Your task to perform on an android device: open app "Reddit" (install if not already installed), go to login, and select forgot password Image 0: 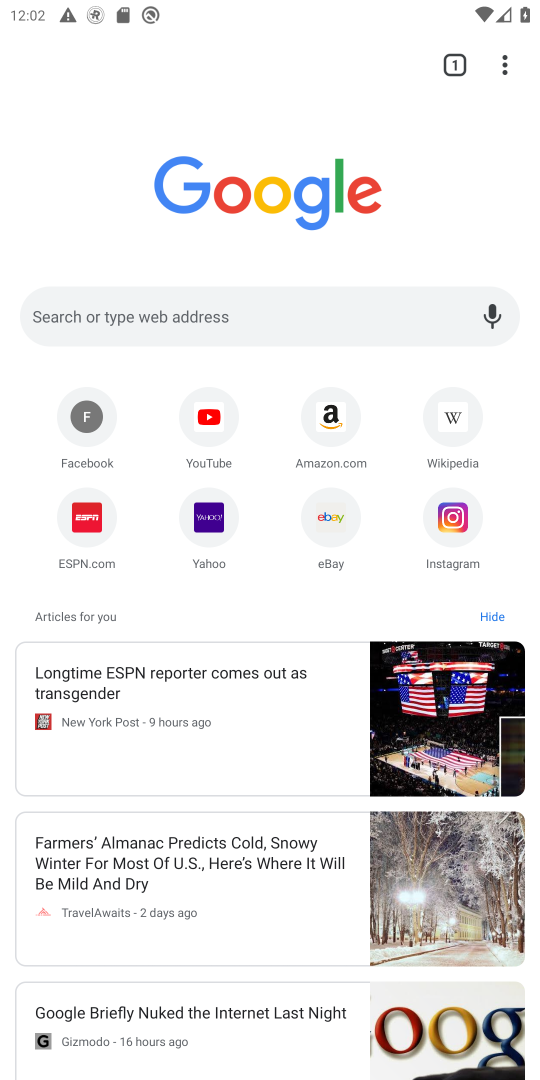
Step 0: press home button
Your task to perform on an android device: open app "Reddit" (install if not already installed), go to login, and select forgot password Image 1: 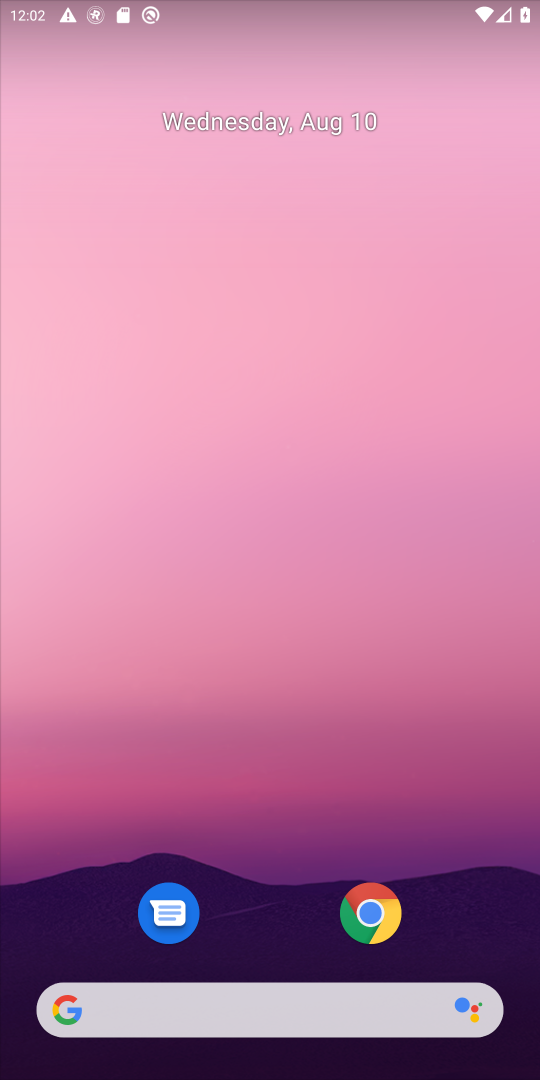
Step 1: drag from (170, 1009) to (198, 306)
Your task to perform on an android device: open app "Reddit" (install if not already installed), go to login, and select forgot password Image 2: 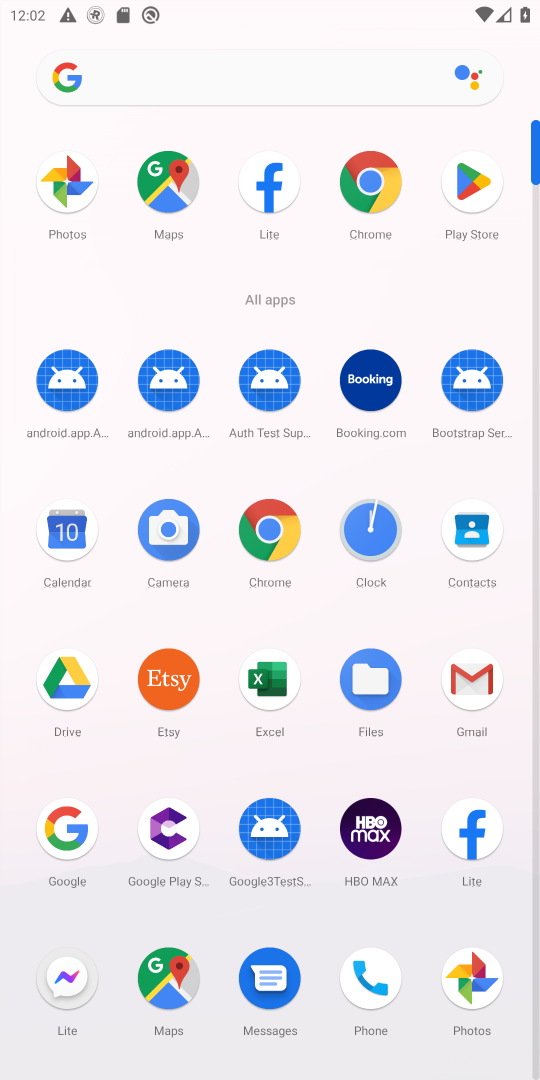
Step 2: click (255, 524)
Your task to perform on an android device: open app "Reddit" (install if not already installed), go to login, and select forgot password Image 3: 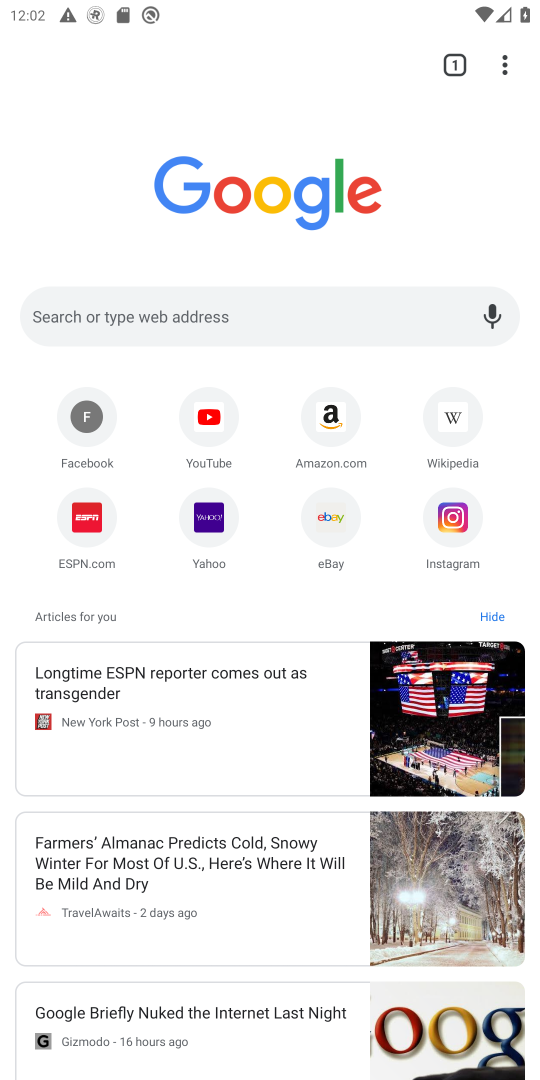
Step 3: press home button
Your task to perform on an android device: open app "Reddit" (install if not already installed), go to login, and select forgot password Image 4: 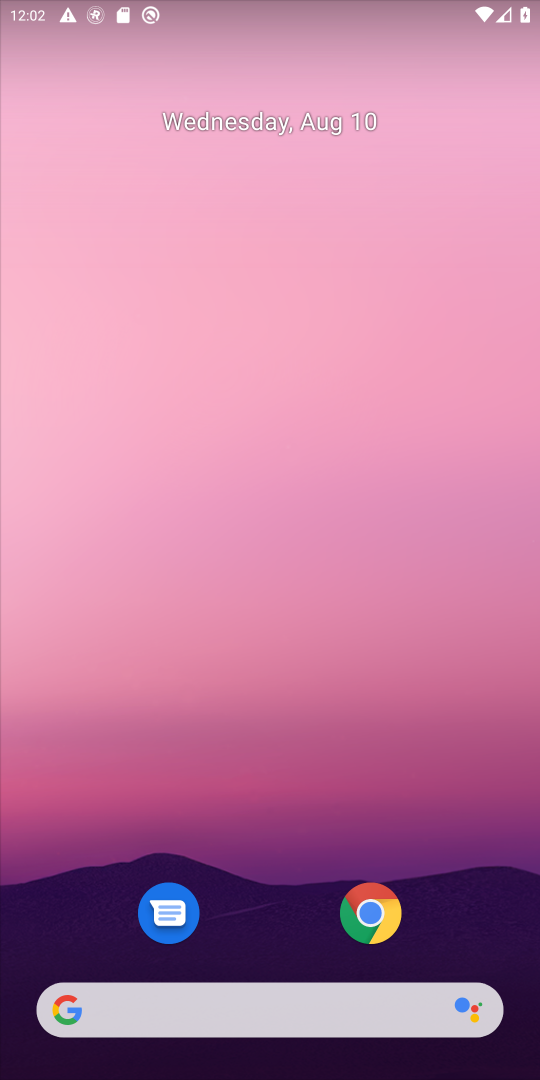
Step 4: drag from (250, 600) to (249, 198)
Your task to perform on an android device: open app "Reddit" (install if not already installed), go to login, and select forgot password Image 5: 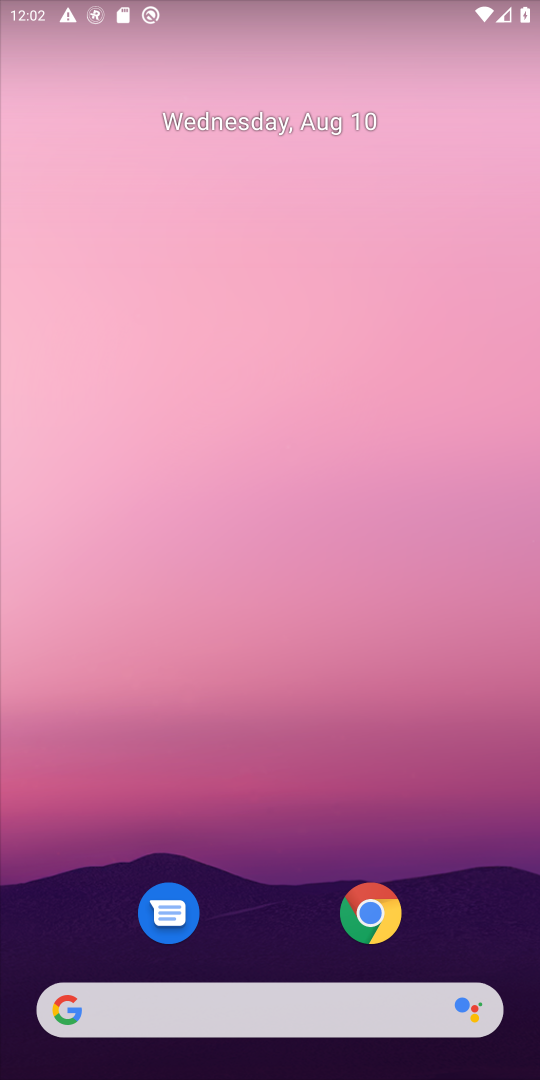
Step 5: drag from (301, 913) to (321, 150)
Your task to perform on an android device: open app "Reddit" (install if not already installed), go to login, and select forgot password Image 6: 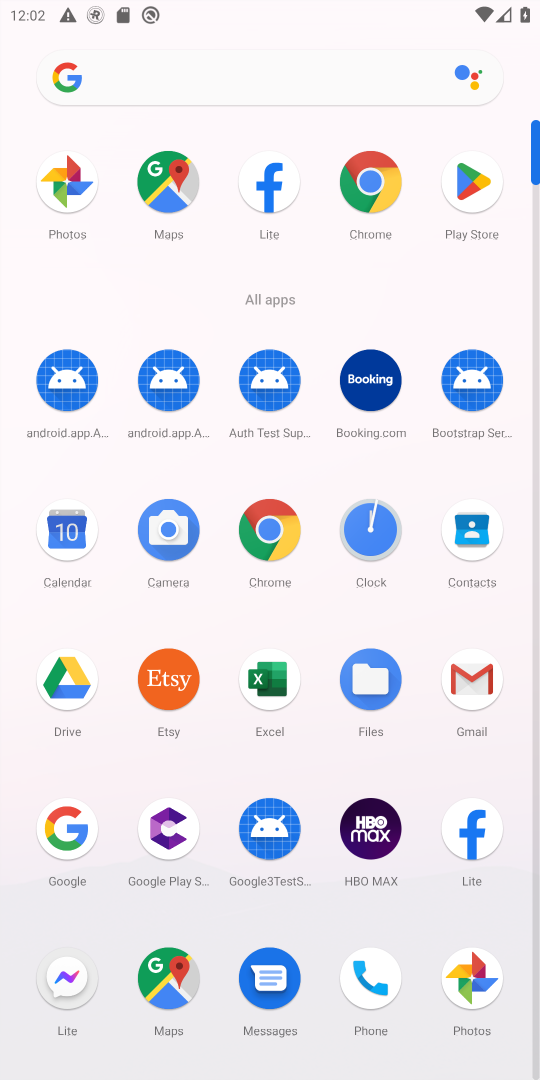
Step 6: click (473, 169)
Your task to perform on an android device: open app "Reddit" (install if not already installed), go to login, and select forgot password Image 7: 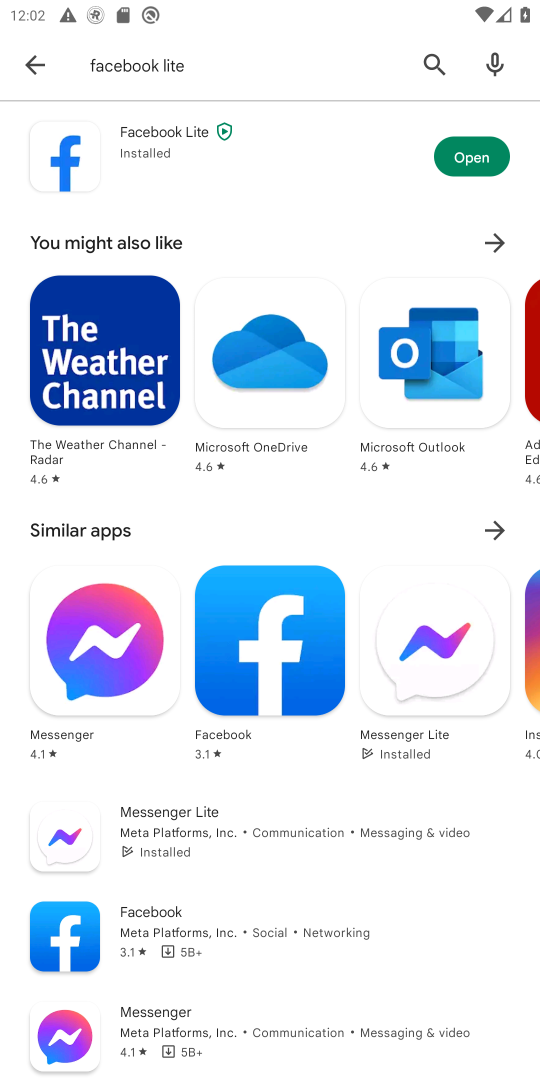
Step 7: click (47, 63)
Your task to perform on an android device: open app "Reddit" (install if not already installed), go to login, and select forgot password Image 8: 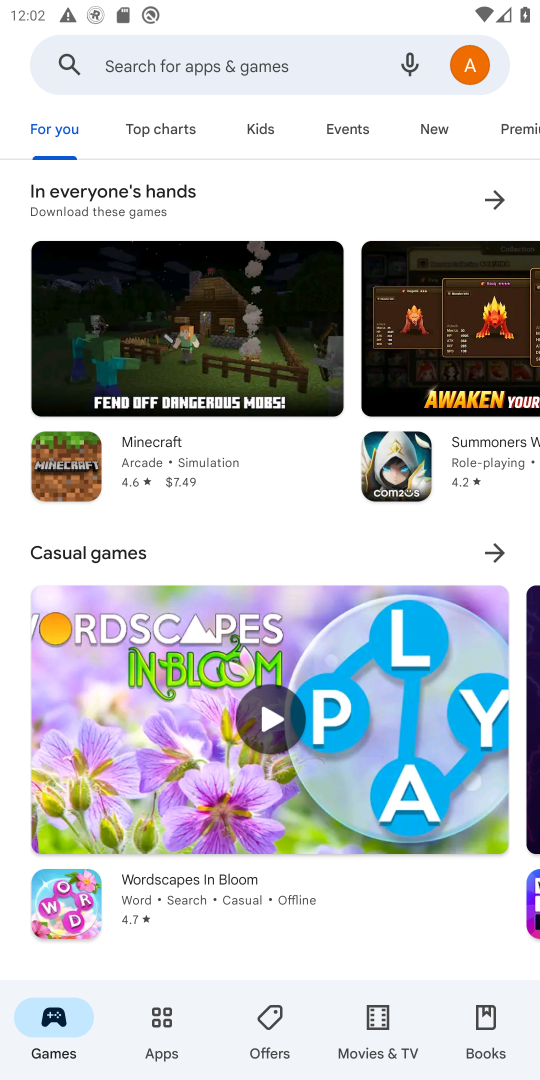
Step 8: click (218, 48)
Your task to perform on an android device: open app "Reddit" (install if not already installed), go to login, and select forgot password Image 9: 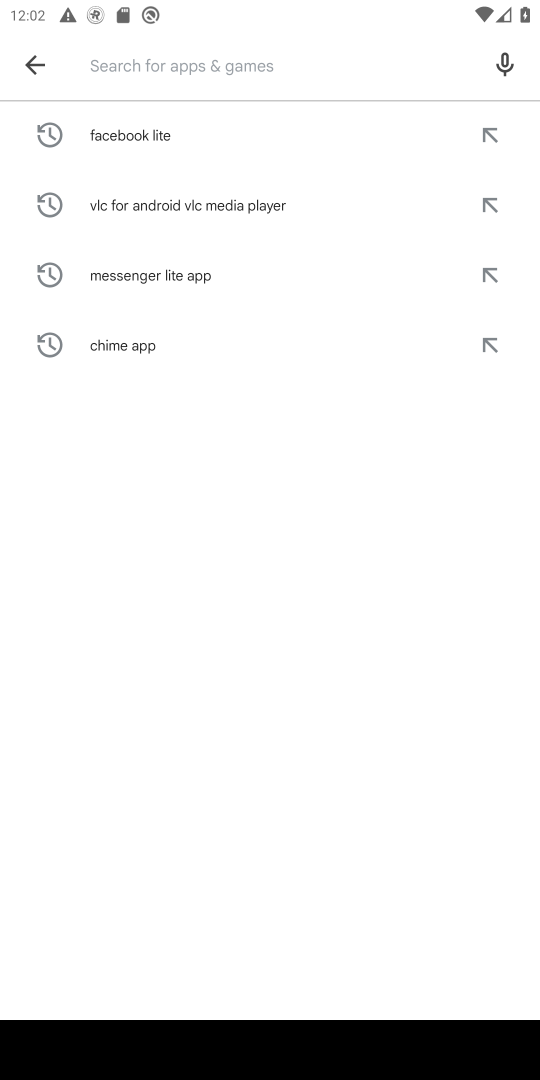
Step 9: type ""Reddit" "
Your task to perform on an android device: open app "Reddit" (install if not already installed), go to login, and select forgot password Image 10: 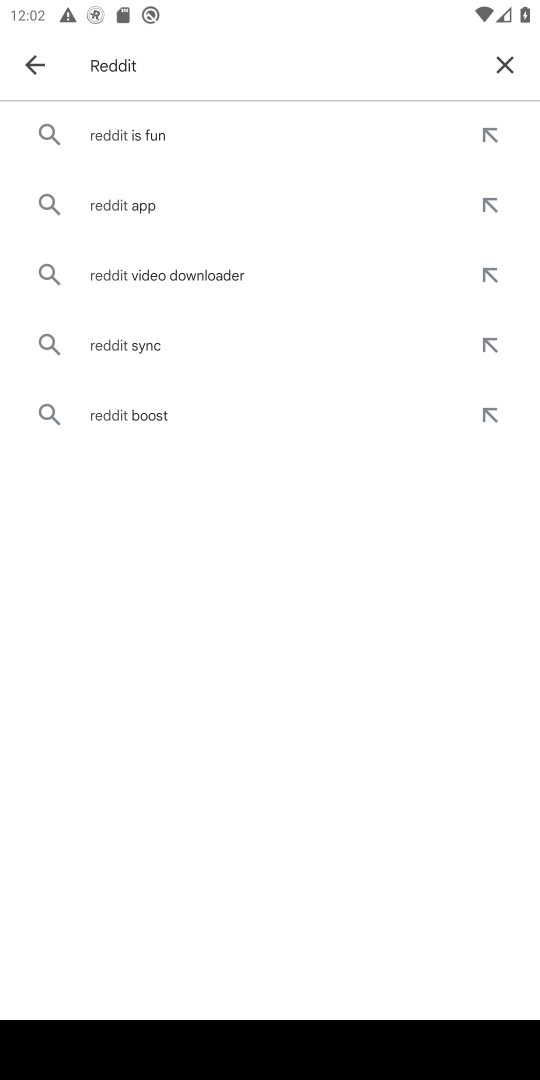
Step 10: click (154, 212)
Your task to perform on an android device: open app "Reddit" (install if not already installed), go to login, and select forgot password Image 11: 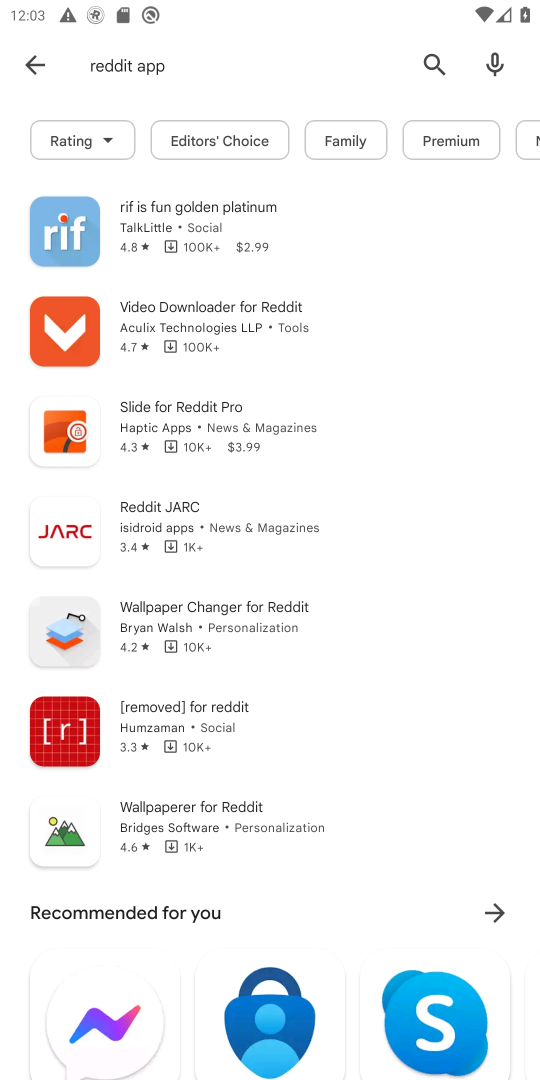
Step 11: click (42, 58)
Your task to perform on an android device: open app "Reddit" (install if not already installed), go to login, and select forgot password Image 12: 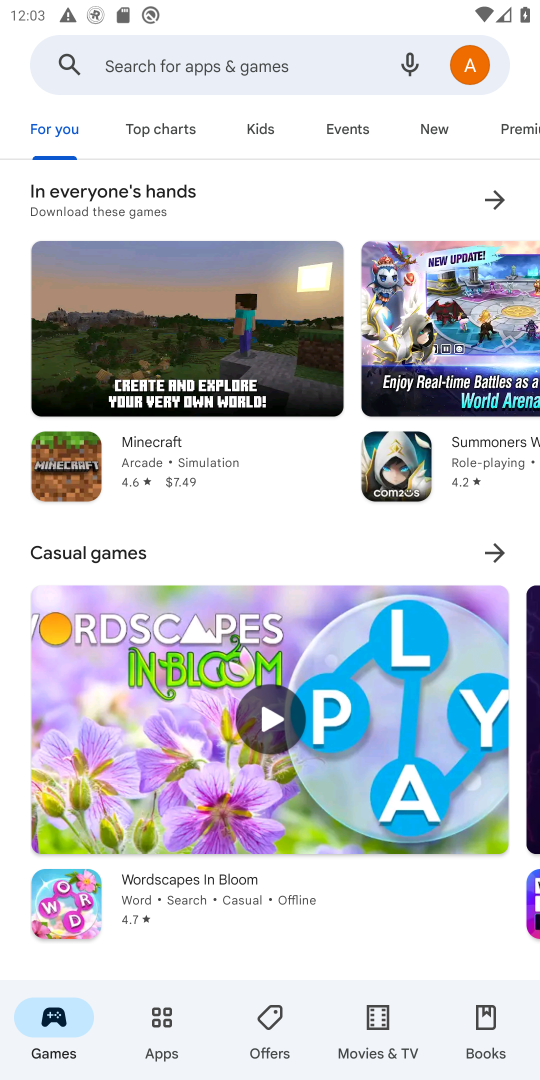
Step 12: click (225, 55)
Your task to perform on an android device: open app "Reddit" (install if not already installed), go to login, and select forgot password Image 13: 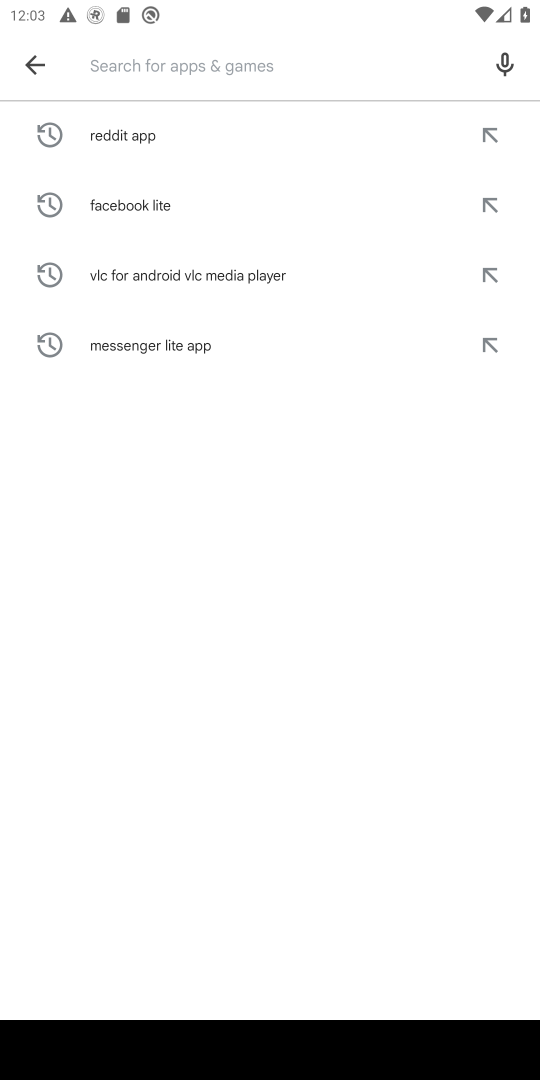
Step 13: type "reddit "
Your task to perform on an android device: open app "Reddit" (install if not already installed), go to login, and select forgot password Image 14: 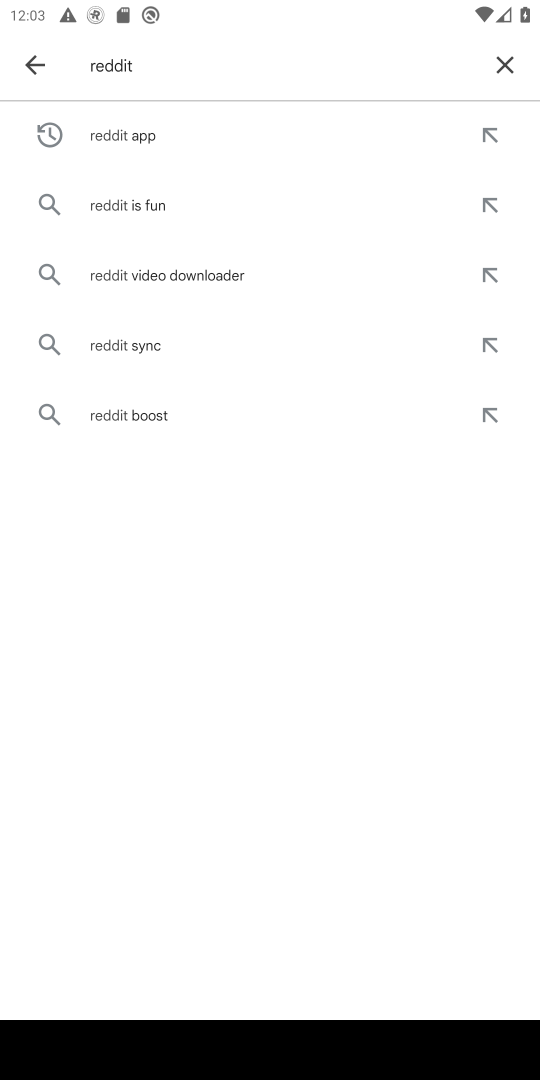
Step 14: click (129, 137)
Your task to perform on an android device: open app "Reddit" (install if not already installed), go to login, and select forgot password Image 15: 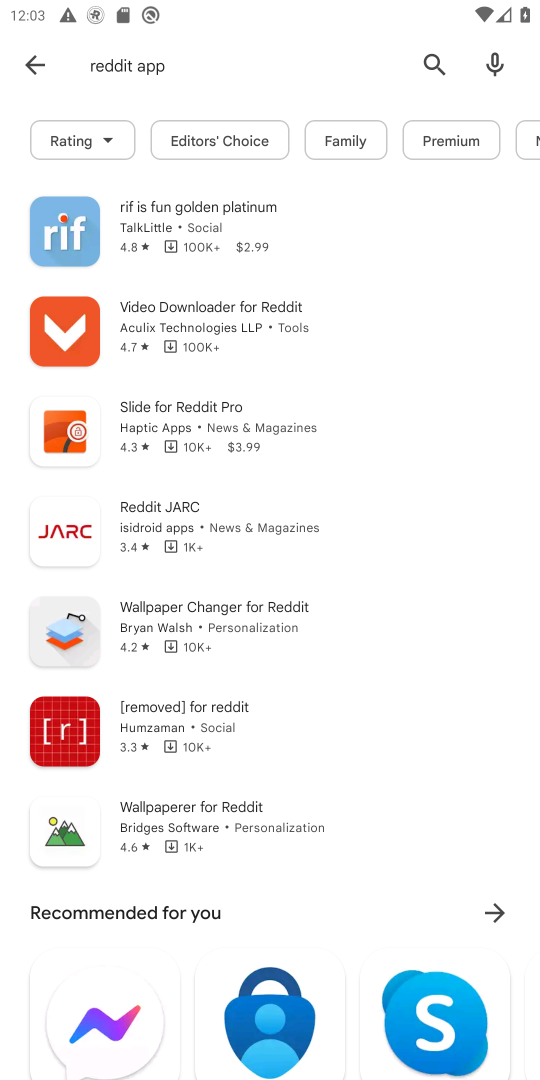
Step 15: task complete